Your task to perform on an android device: refresh tabs in the chrome app Image 0: 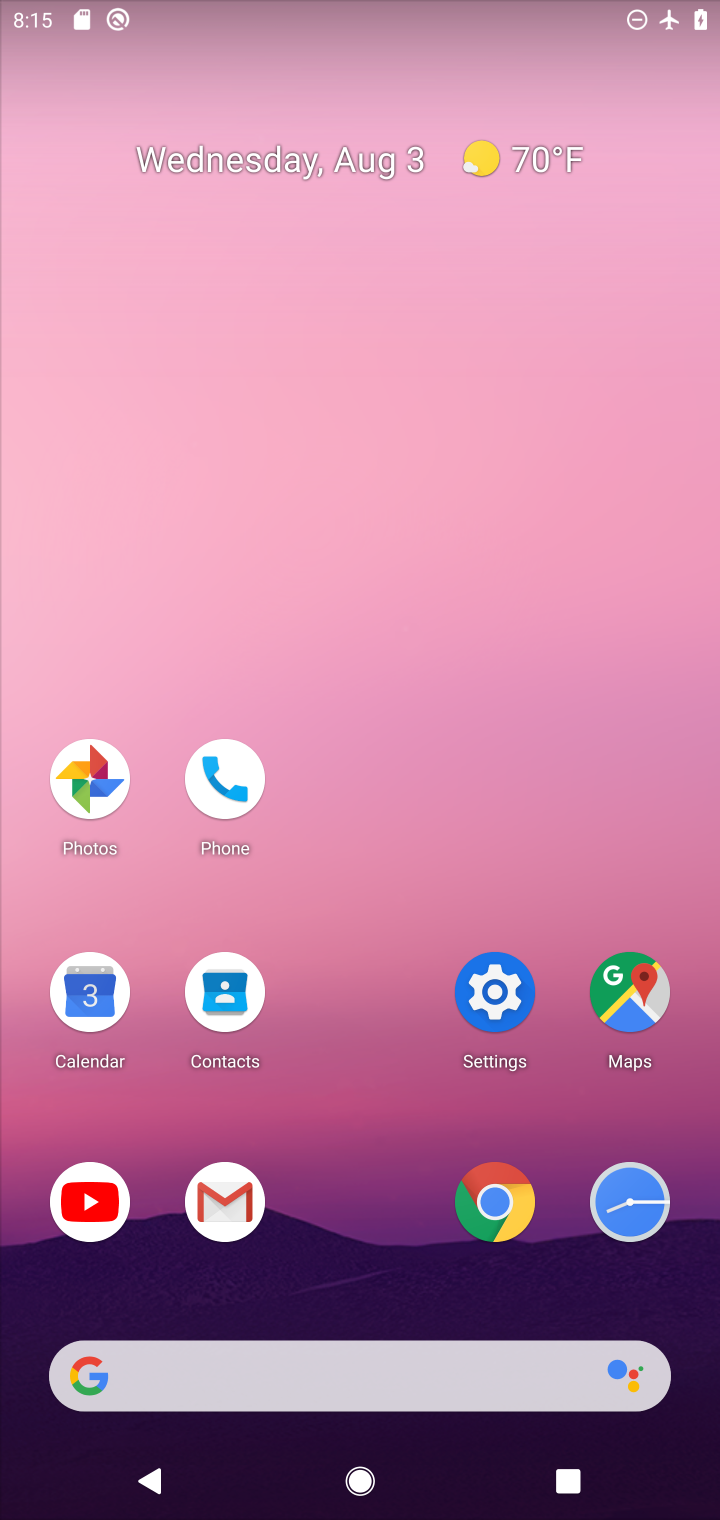
Step 0: click (496, 1205)
Your task to perform on an android device: refresh tabs in the chrome app Image 1: 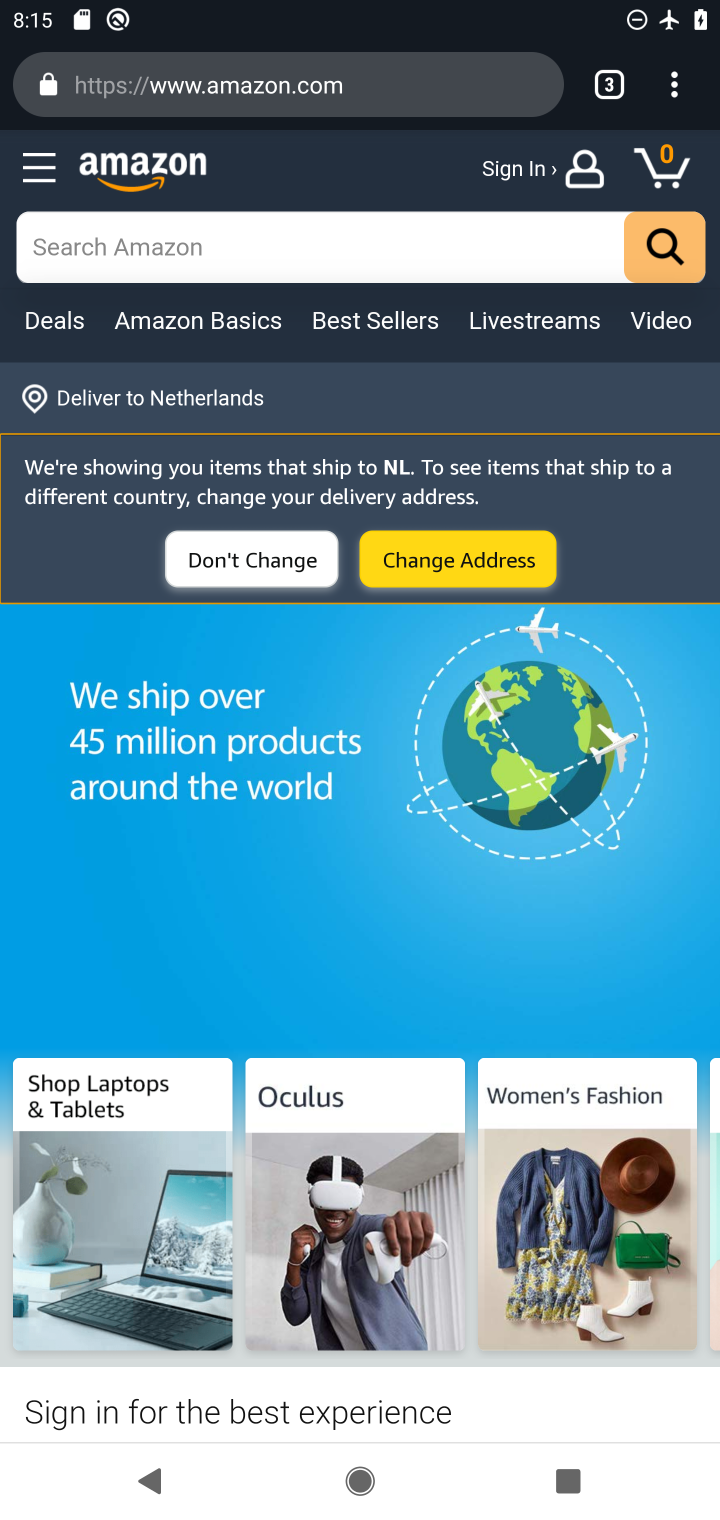
Step 1: click (686, 74)
Your task to perform on an android device: refresh tabs in the chrome app Image 2: 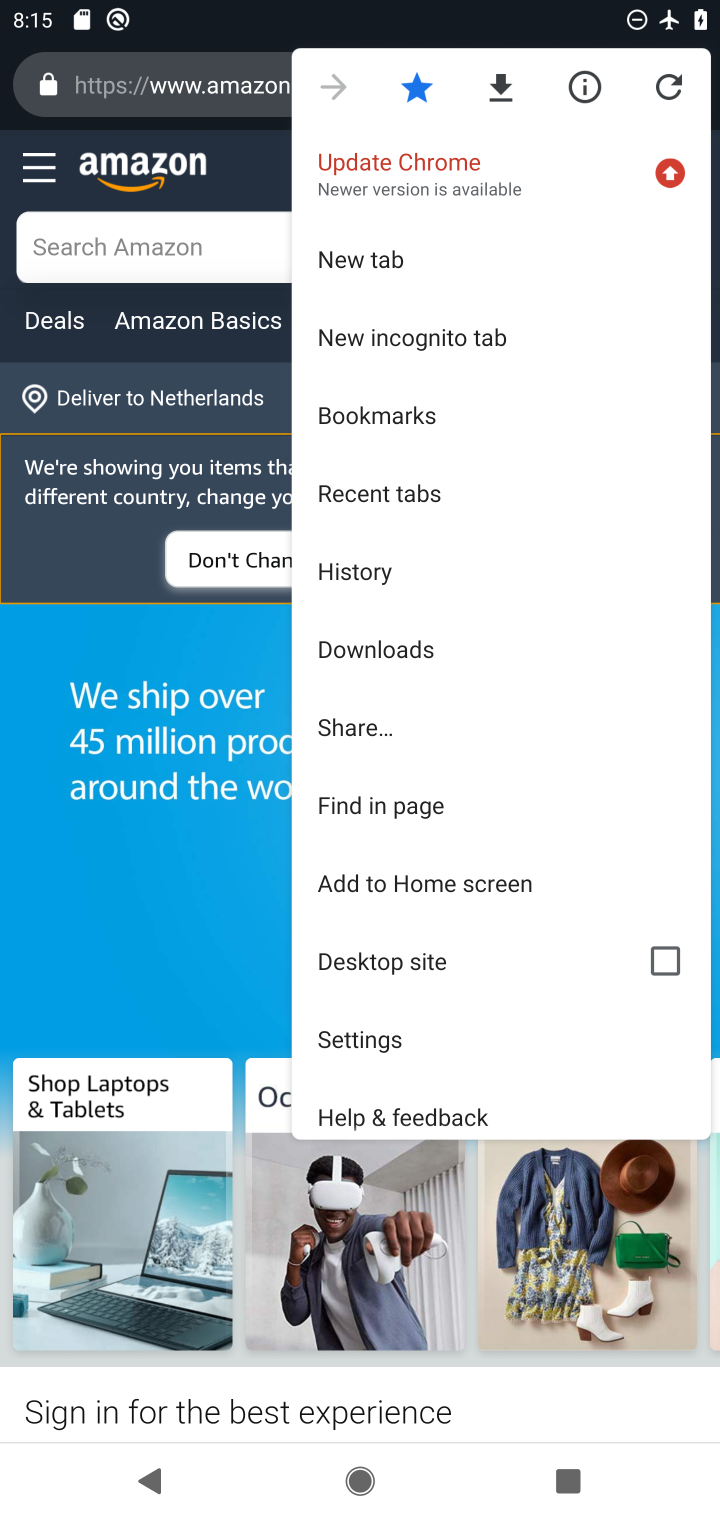
Step 2: click (664, 91)
Your task to perform on an android device: refresh tabs in the chrome app Image 3: 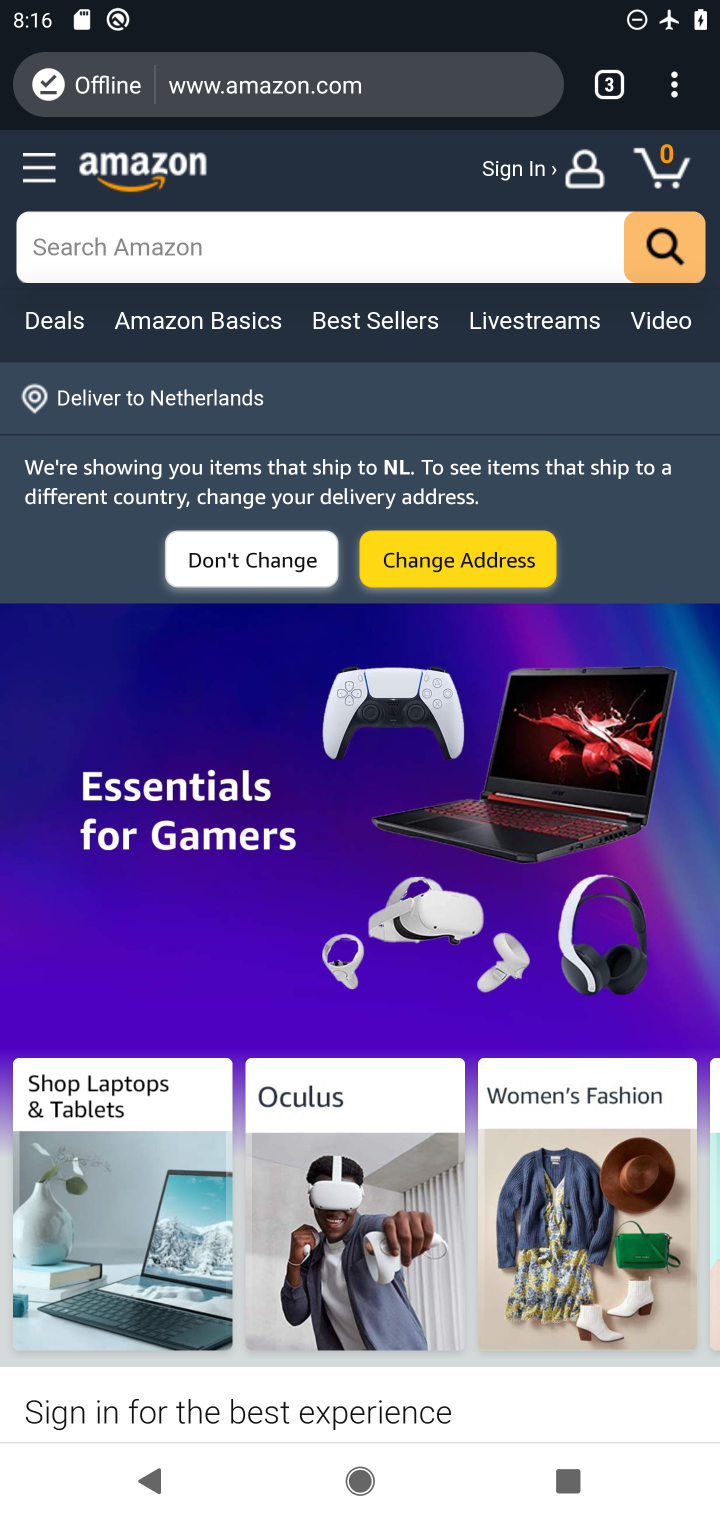
Step 3: task complete